Your task to perform on an android device: Search for "lg ultragear" on walmart, select the first entry, and add it to the cart. Image 0: 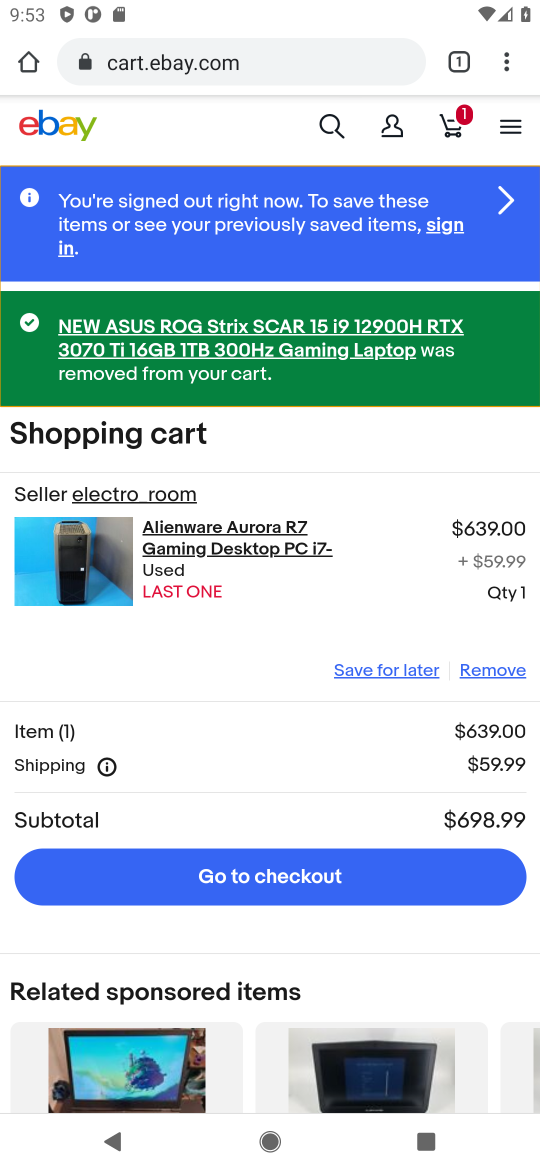
Step 0: press home button
Your task to perform on an android device: Search for "lg ultragear" on walmart, select the first entry, and add it to the cart. Image 1: 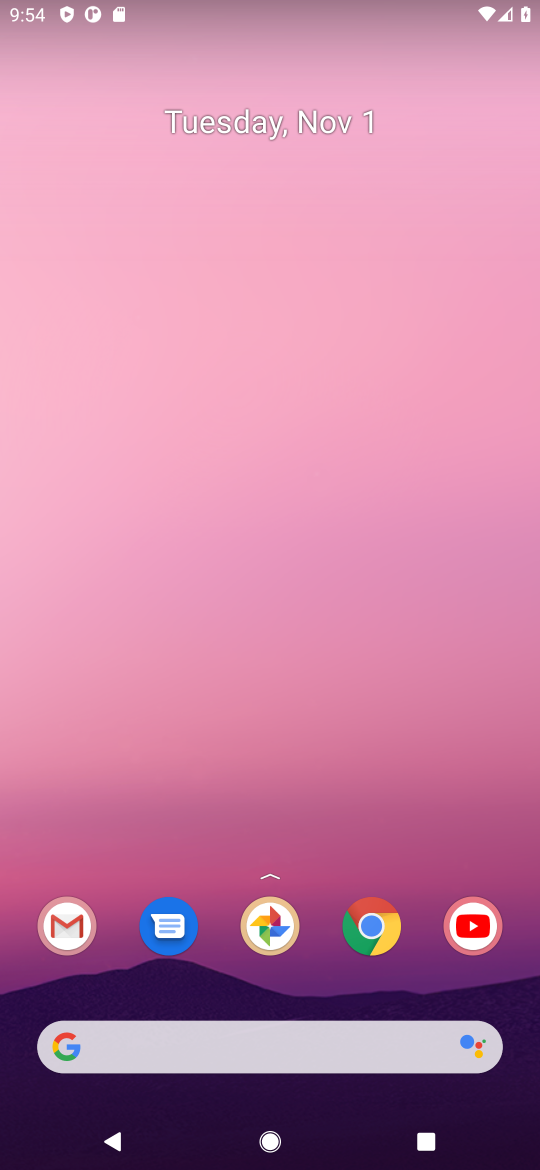
Step 1: click (369, 942)
Your task to perform on an android device: Search for "lg ultragear" on walmart, select the first entry, and add it to the cart. Image 2: 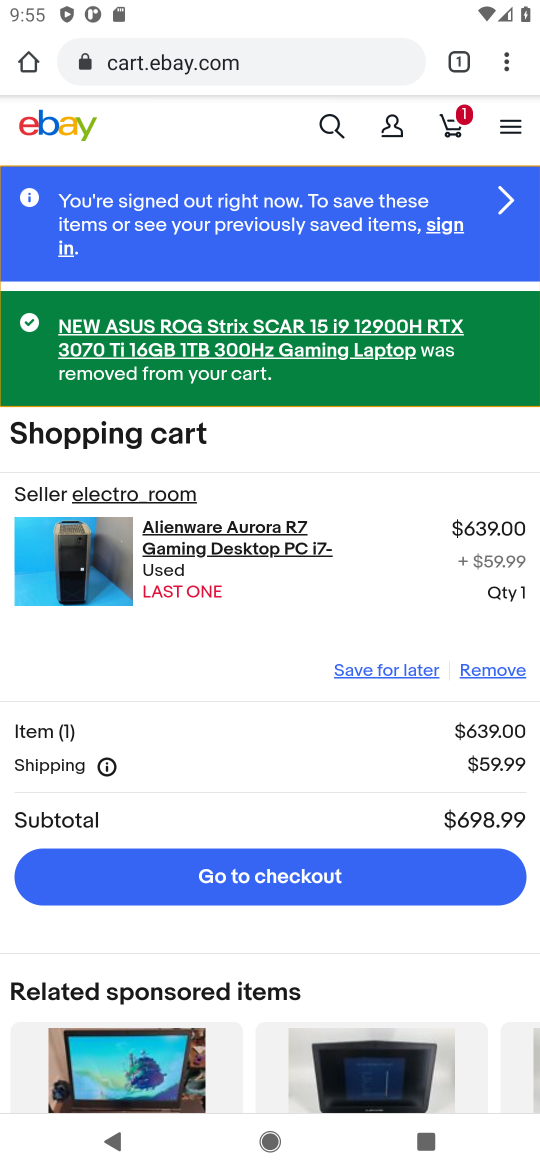
Step 2: click (178, 69)
Your task to perform on an android device: Search for "lg ultragear" on walmart, select the first entry, and add it to the cart. Image 3: 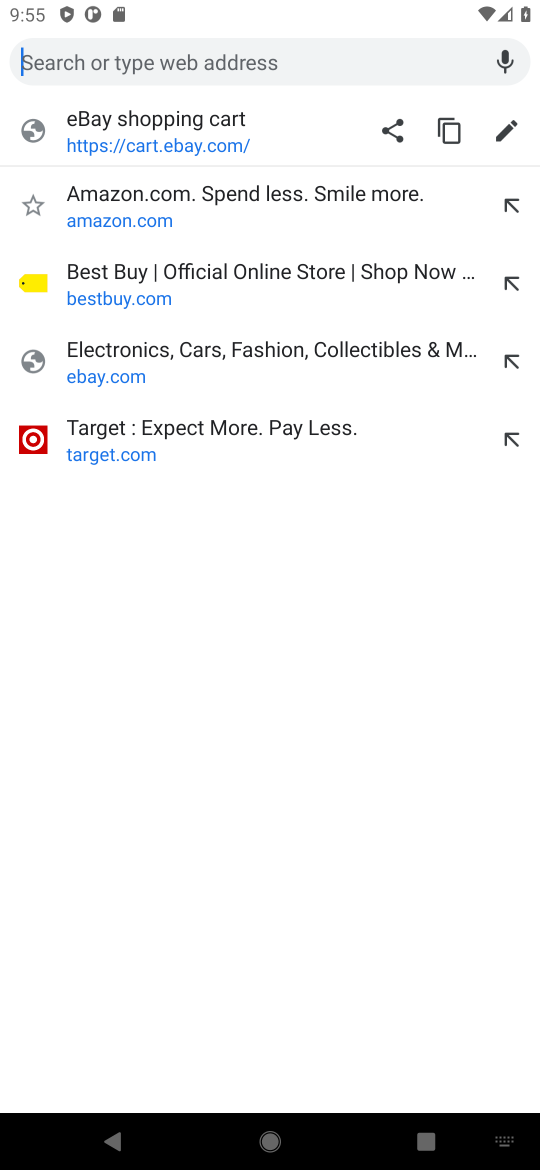
Step 3: type "walmart"
Your task to perform on an android device: Search for "lg ultragear" on walmart, select the first entry, and add it to the cart. Image 4: 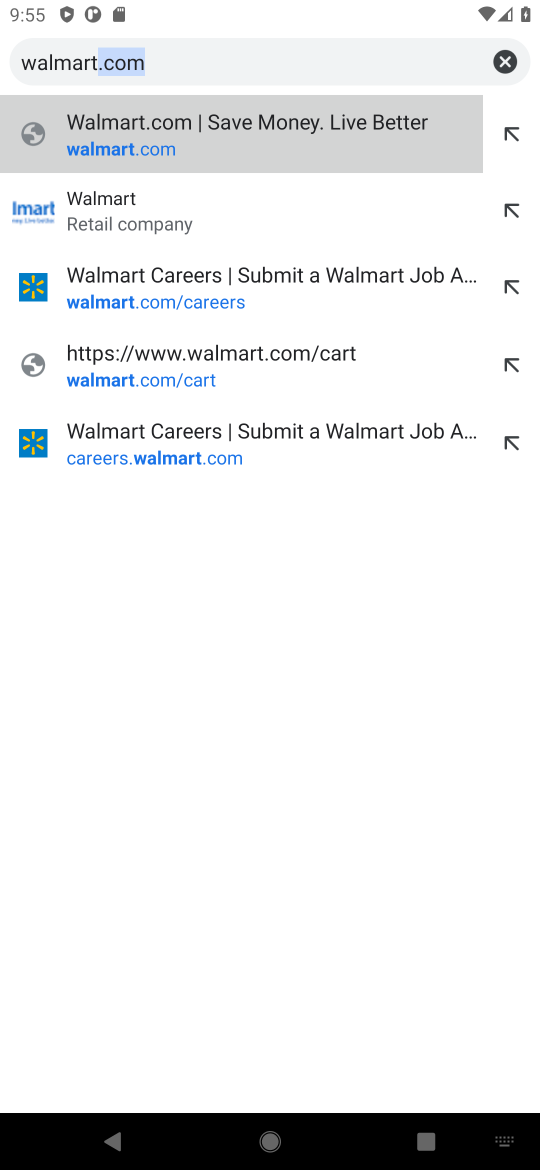
Step 4: type ""
Your task to perform on an android device: Search for "lg ultragear" on walmart, select the first entry, and add it to the cart. Image 5: 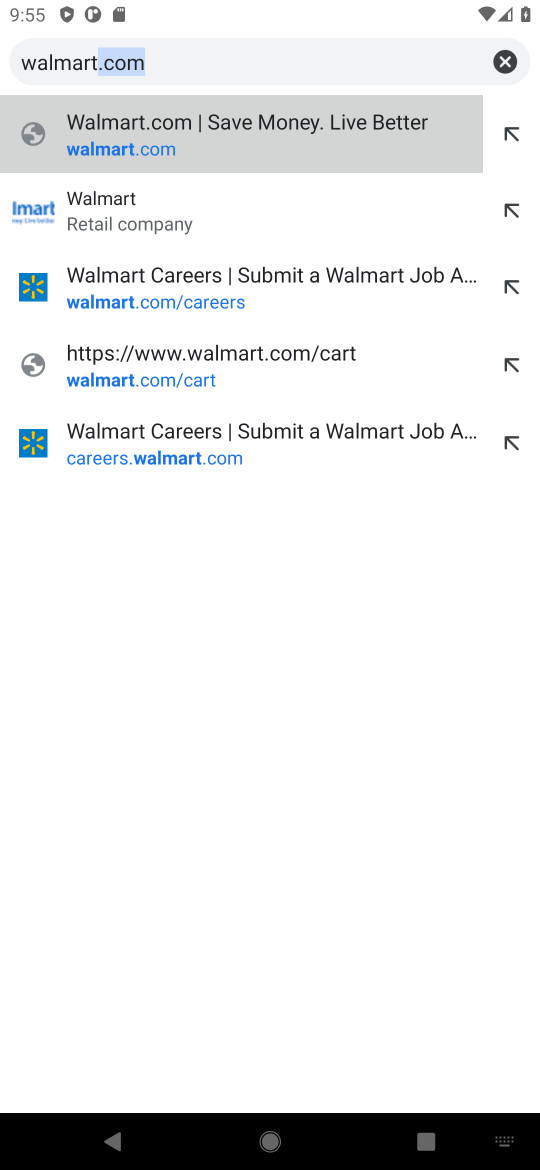
Step 5: click (85, 228)
Your task to perform on an android device: Search for "lg ultragear" on walmart, select the first entry, and add it to the cart. Image 6: 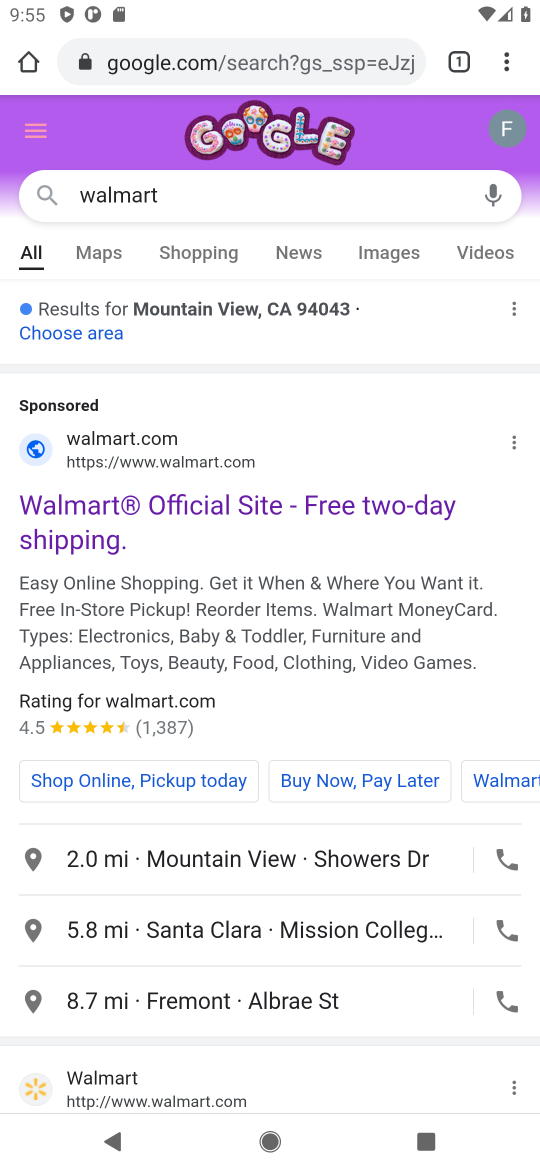
Step 6: drag from (173, 892) to (182, 340)
Your task to perform on an android device: Search for "lg ultragear" on walmart, select the first entry, and add it to the cart. Image 7: 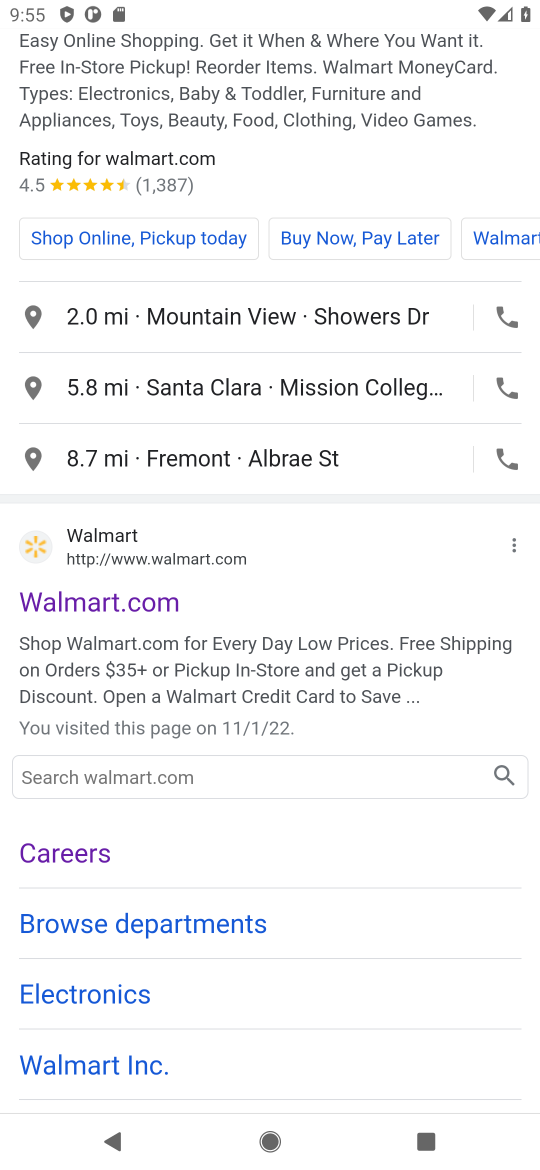
Step 7: click (81, 608)
Your task to perform on an android device: Search for "lg ultragear" on walmart, select the first entry, and add it to the cart. Image 8: 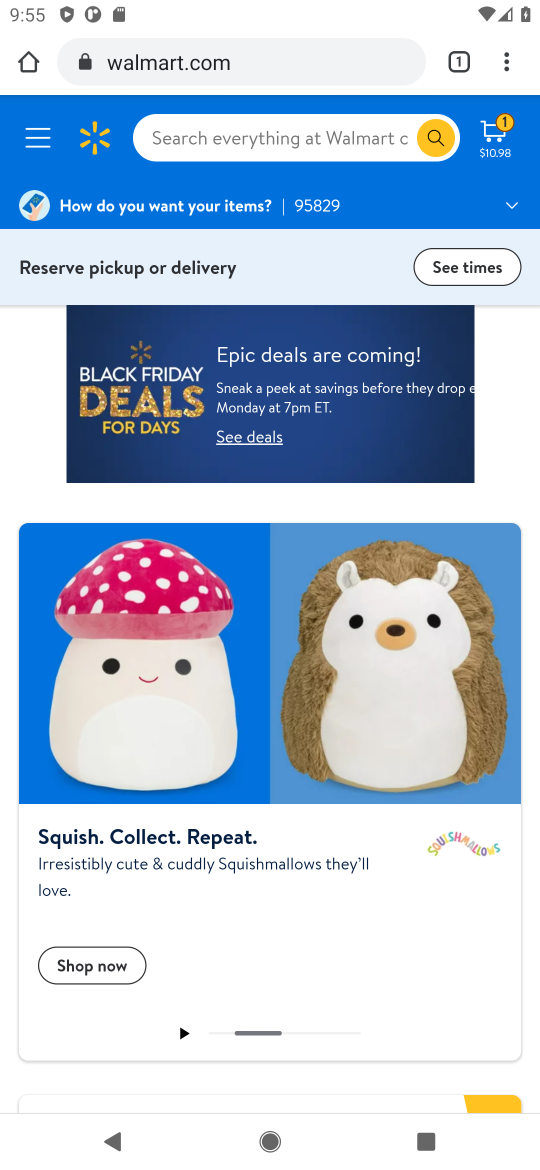
Step 8: click (201, 127)
Your task to perform on an android device: Search for "lg ultragear" on walmart, select the first entry, and add it to the cart. Image 9: 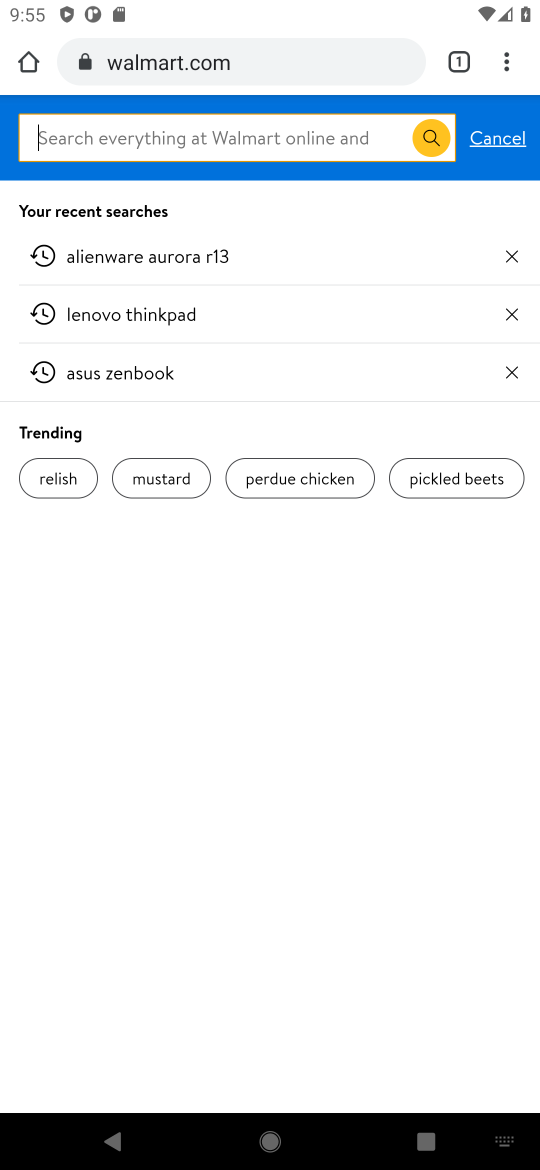
Step 9: type "lg ultragear"
Your task to perform on an android device: Search for "lg ultragear" on walmart, select the first entry, and add it to the cart. Image 10: 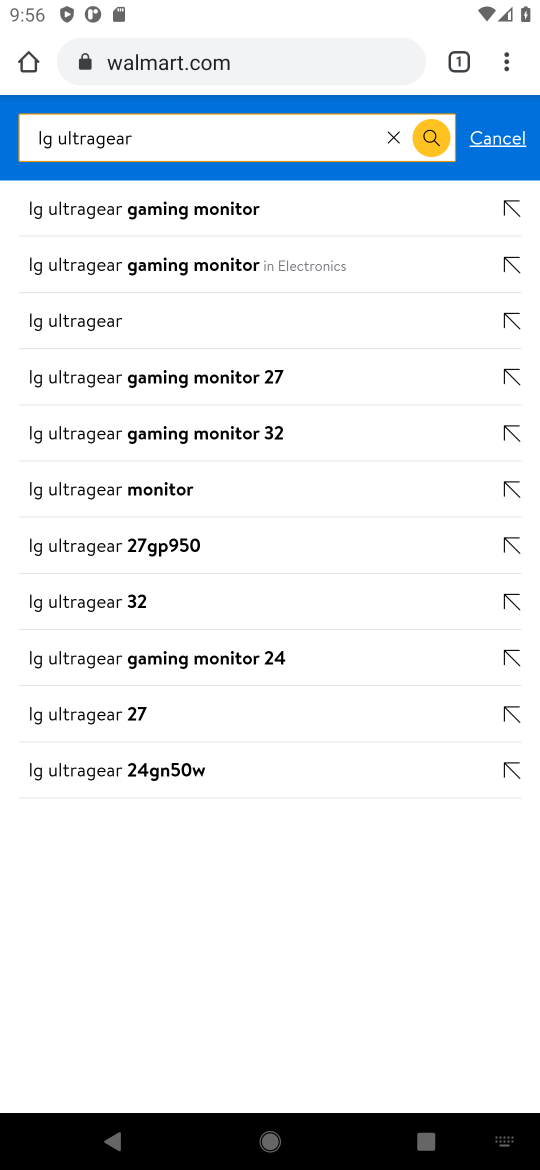
Step 10: click (88, 306)
Your task to perform on an android device: Search for "lg ultragear" on walmart, select the first entry, and add it to the cart. Image 11: 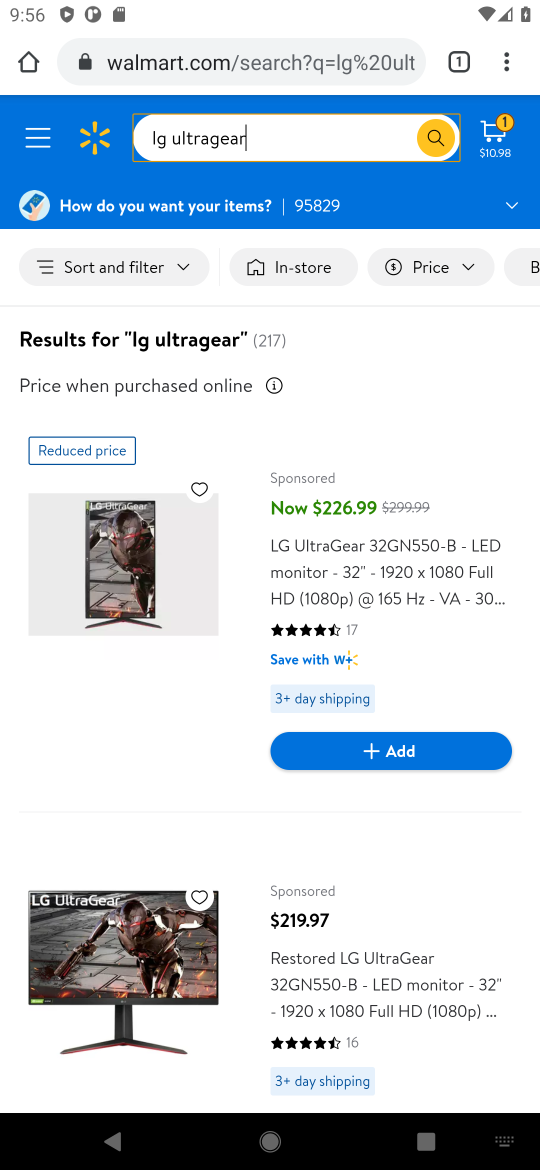
Step 11: drag from (222, 651) to (210, 425)
Your task to perform on an android device: Search for "lg ultragear" on walmart, select the first entry, and add it to the cart. Image 12: 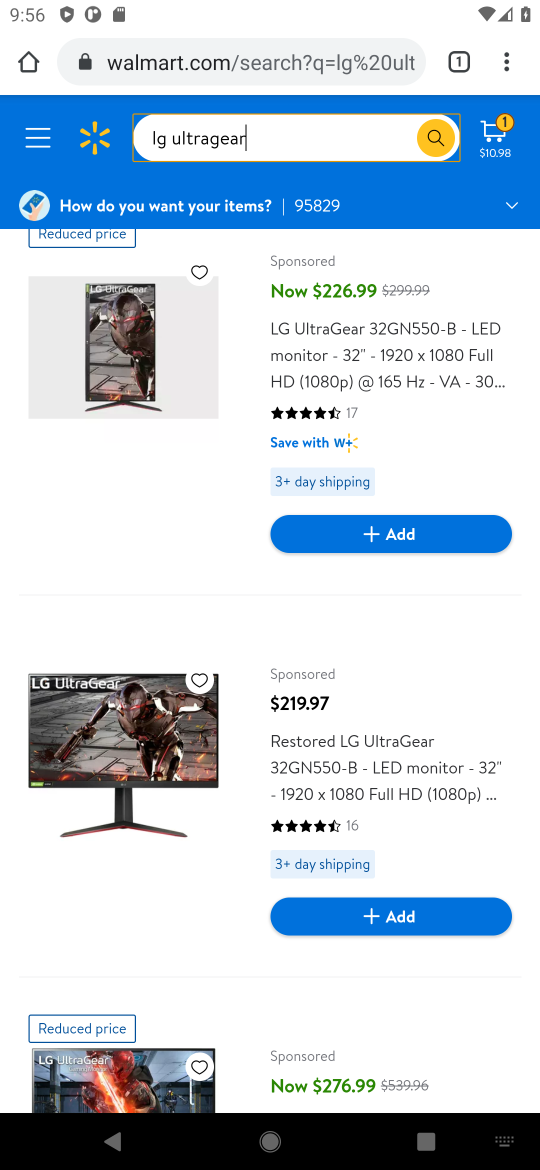
Step 12: click (309, 315)
Your task to perform on an android device: Search for "lg ultragear" on walmart, select the first entry, and add it to the cart. Image 13: 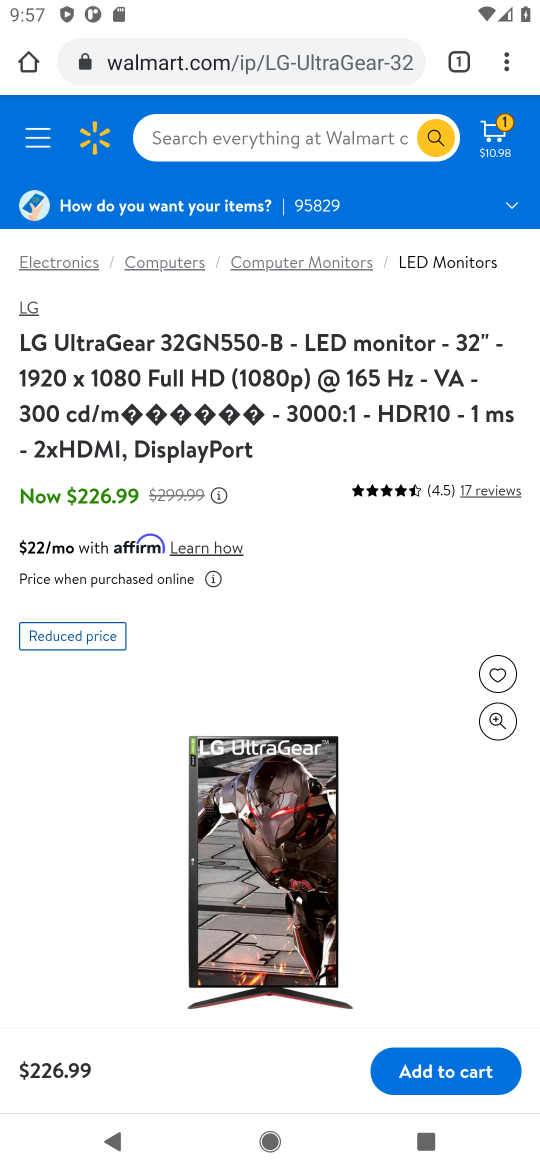
Step 13: click (412, 1072)
Your task to perform on an android device: Search for "lg ultragear" on walmart, select the first entry, and add it to the cart. Image 14: 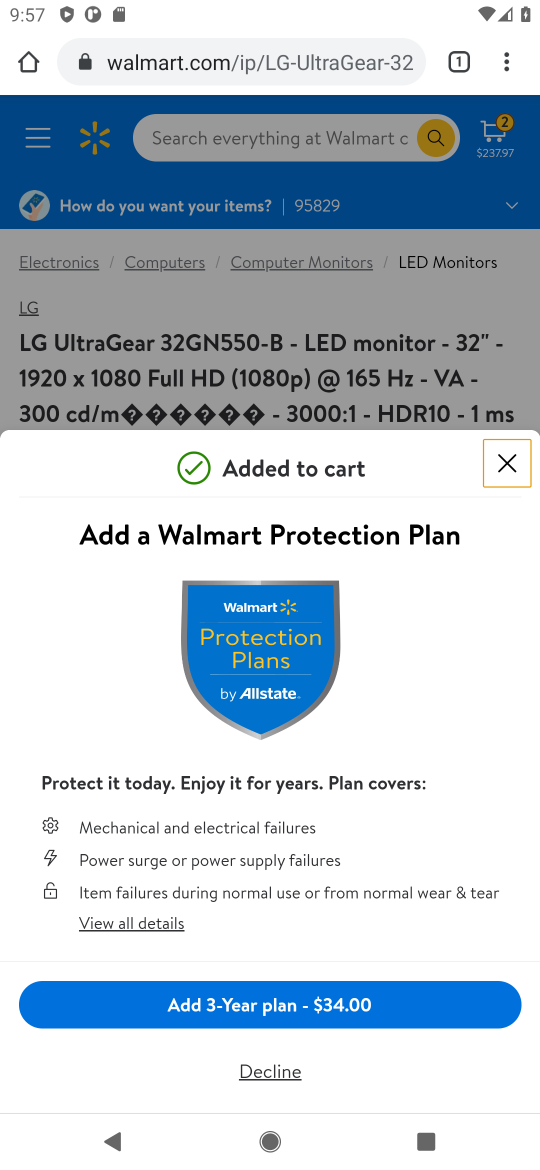
Step 14: click (498, 462)
Your task to perform on an android device: Search for "lg ultragear" on walmart, select the first entry, and add it to the cart. Image 15: 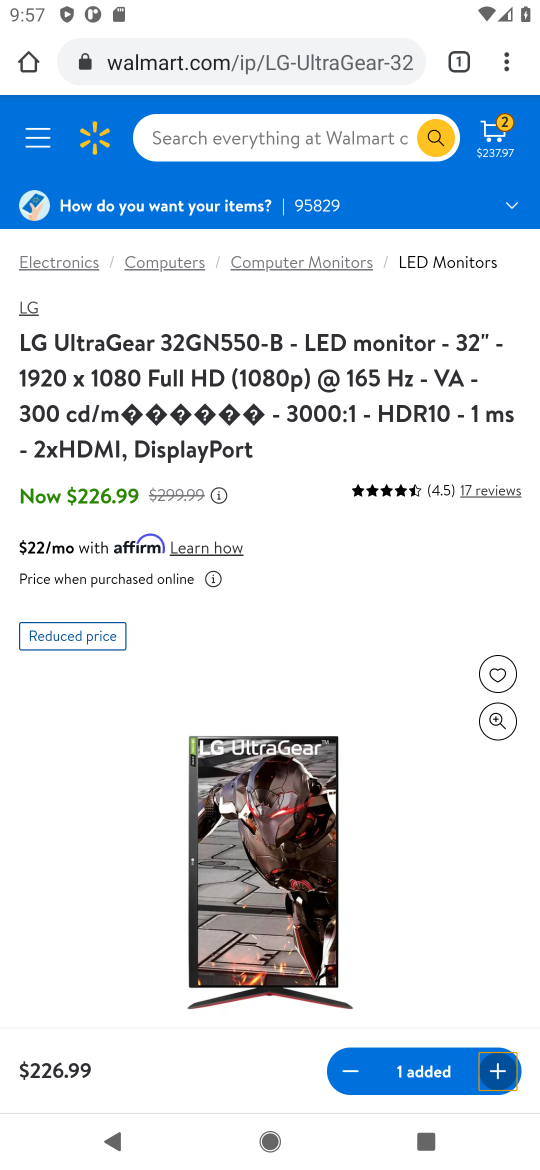
Step 15: click (481, 137)
Your task to perform on an android device: Search for "lg ultragear" on walmart, select the first entry, and add it to the cart. Image 16: 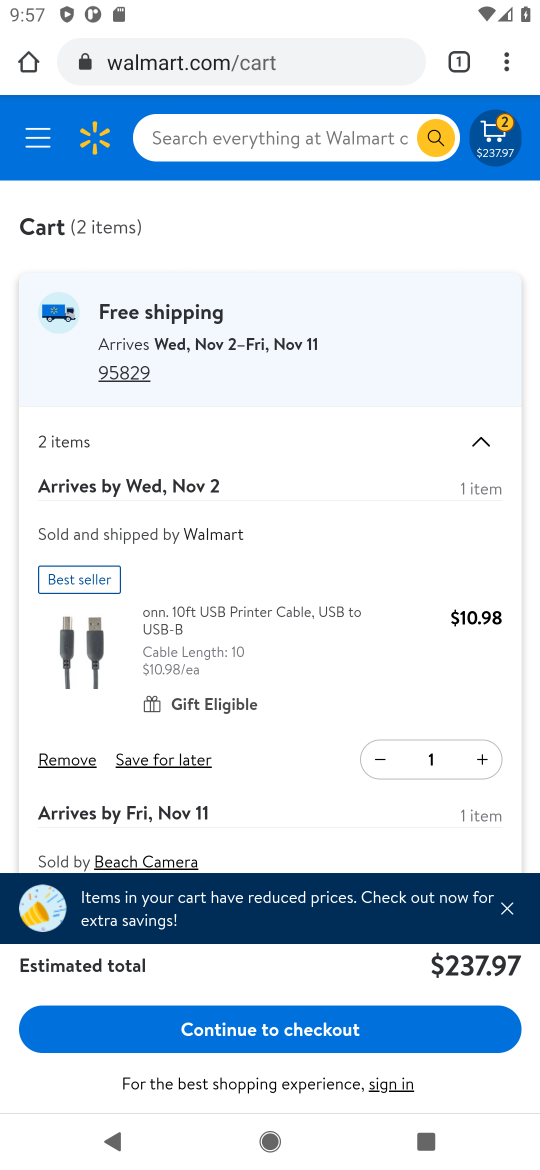
Step 16: task complete